Your task to perform on an android device: check google app version Image 0: 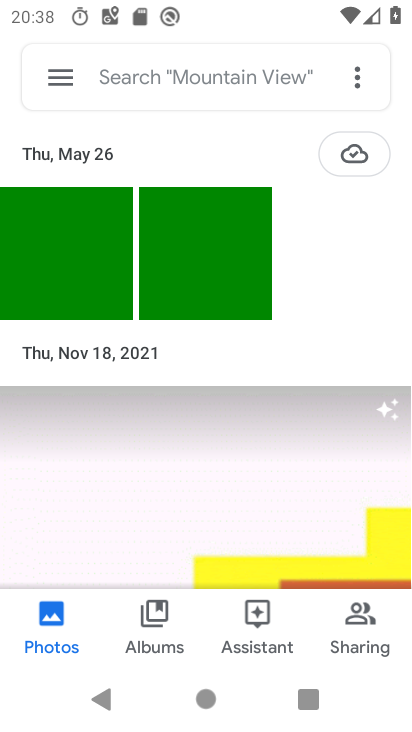
Step 0: press home button
Your task to perform on an android device: check google app version Image 1: 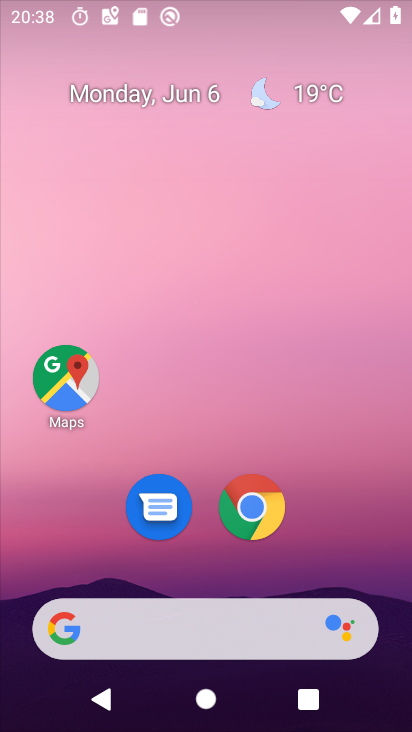
Step 1: drag from (288, 604) to (328, 4)
Your task to perform on an android device: check google app version Image 2: 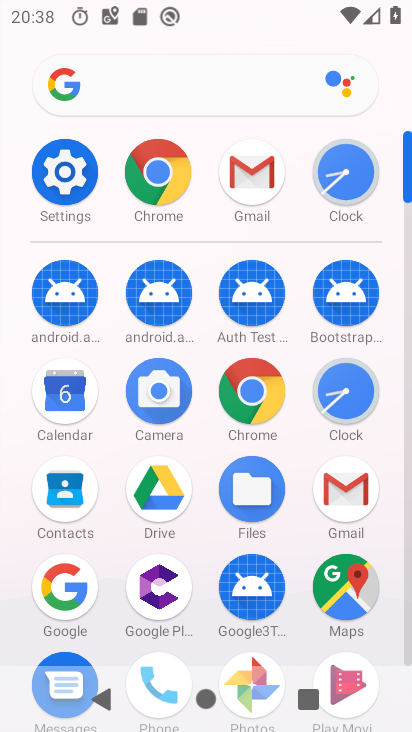
Step 2: click (65, 590)
Your task to perform on an android device: check google app version Image 3: 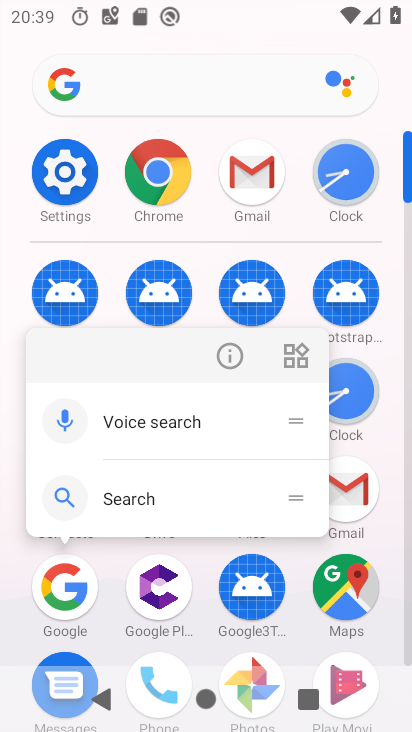
Step 3: click (225, 354)
Your task to perform on an android device: check google app version Image 4: 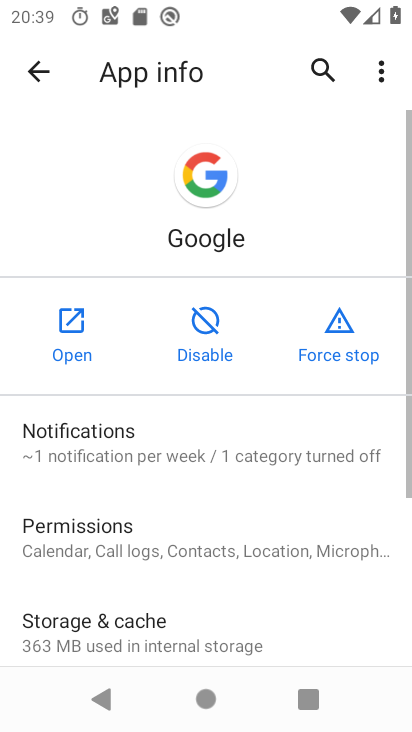
Step 4: drag from (324, 414) to (389, 5)
Your task to perform on an android device: check google app version Image 5: 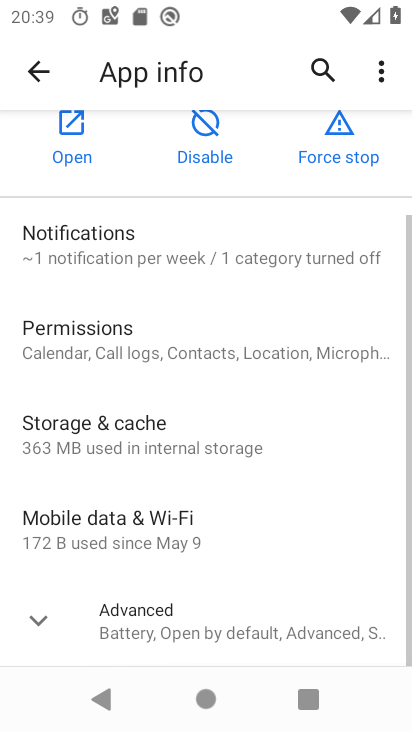
Step 5: click (235, 632)
Your task to perform on an android device: check google app version Image 6: 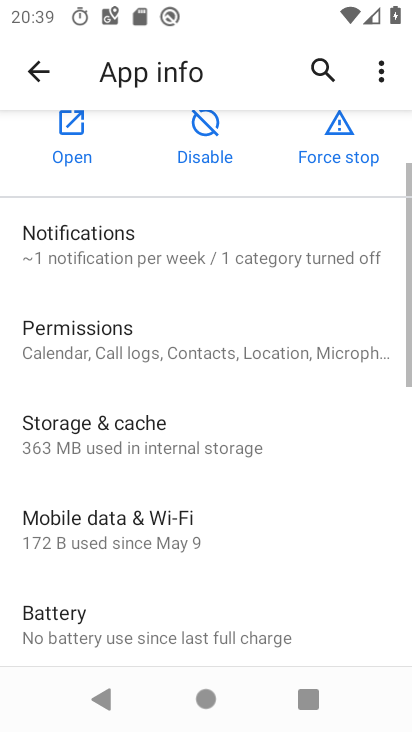
Step 6: task complete